Your task to perform on an android device: Show me the alarms in the clock app Image 0: 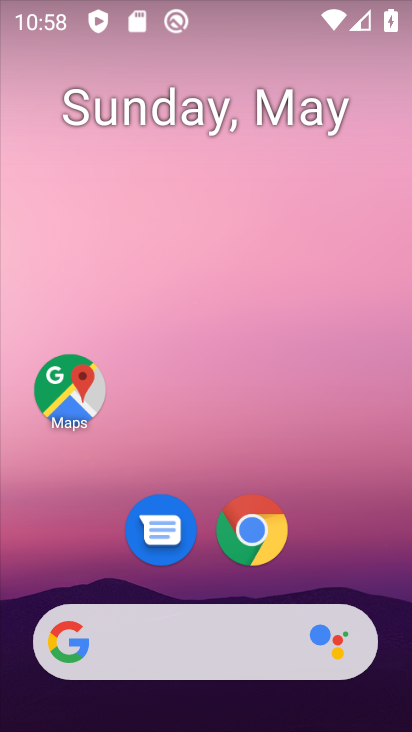
Step 0: drag from (188, 551) to (215, 16)
Your task to perform on an android device: Show me the alarms in the clock app Image 1: 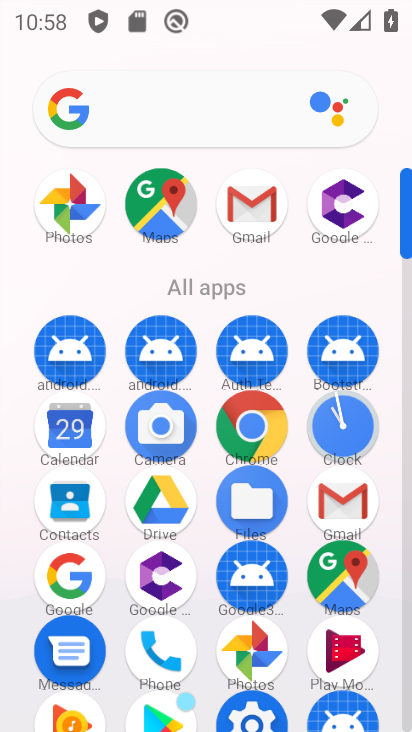
Step 1: click (345, 434)
Your task to perform on an android device: Show me the alarms in the clock app Image 2: 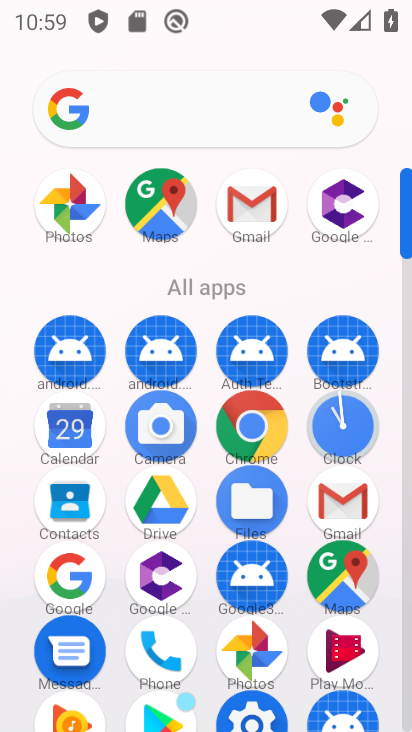
Step 2: click (343, 421)
Your task to perform on an android device: Show me the alarms in the clock app Image 3: 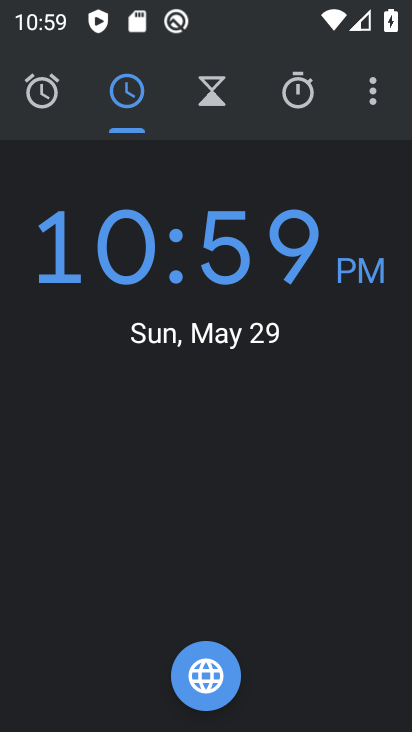
Step 3: click (57, 83)
Your task to perform on an android device: Show me the alarms in the clock app Image 4: 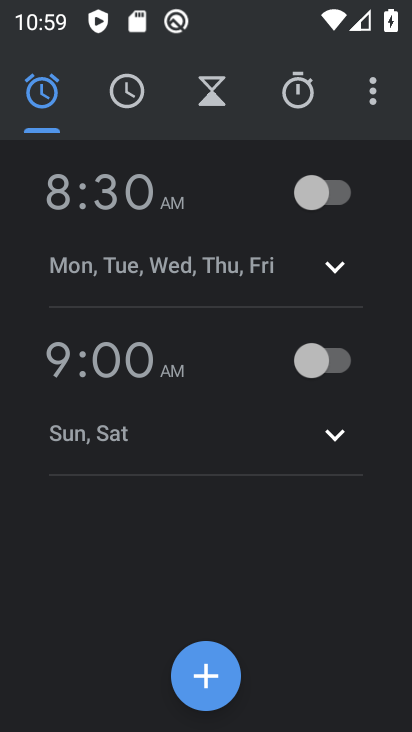
Step 4: task complete